Your task to perform on an android device: Open eBay Image 0: 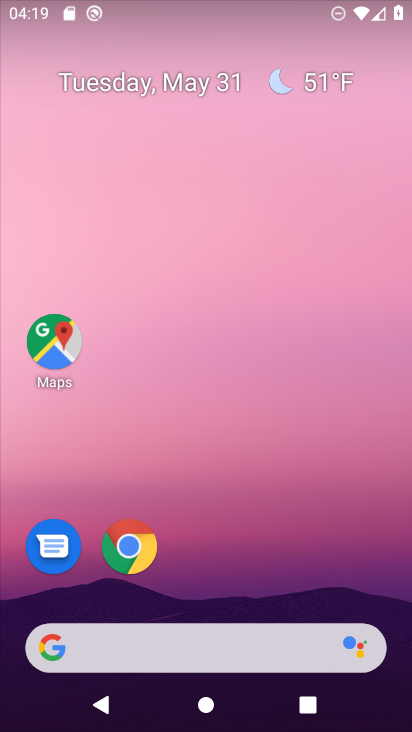
Step 0: drag from (189, 595) to (219, 112)
Your task to perform on an android device: Open eBay Image 1: 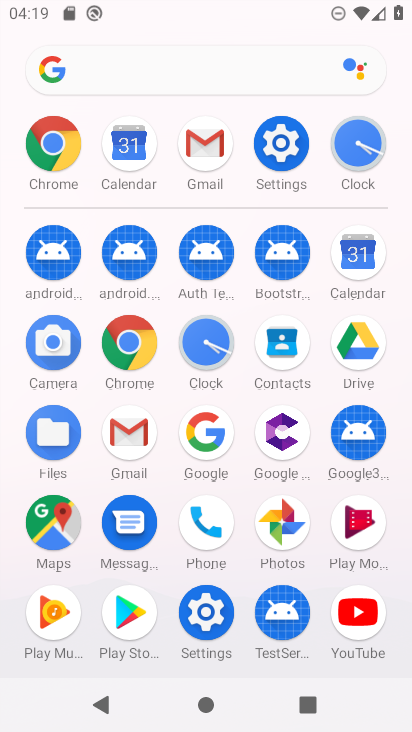
Step 1: click (121, 367)
Your task to perform on an android device: Open eBay Image 2: 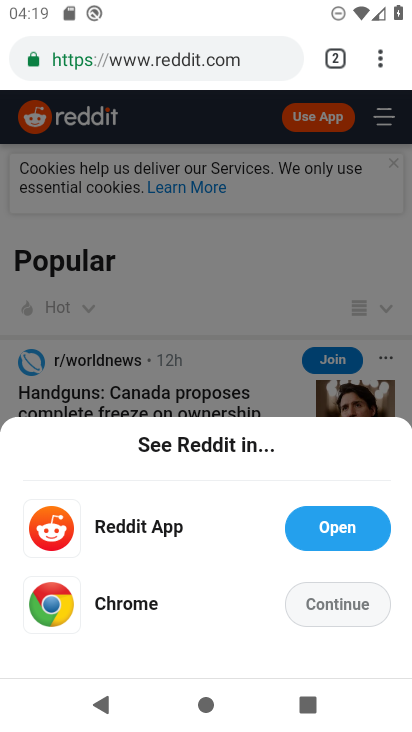
Step 2: press back button
Your task to perform on an android device: Open eBay Image 3: 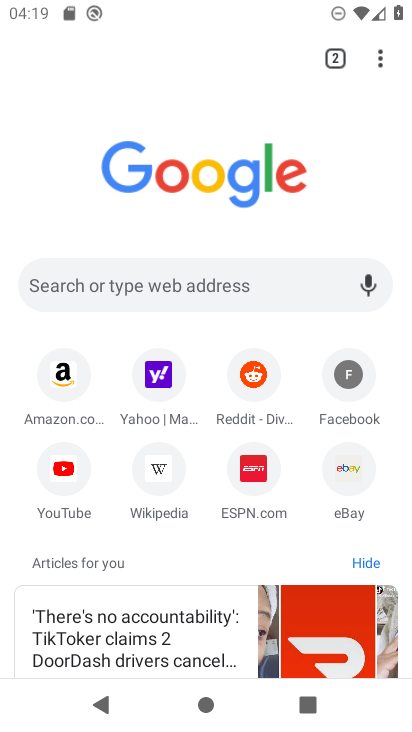
Step 3: click (351, 467)
Your task to perform on an android device: Open eBay Image 4: 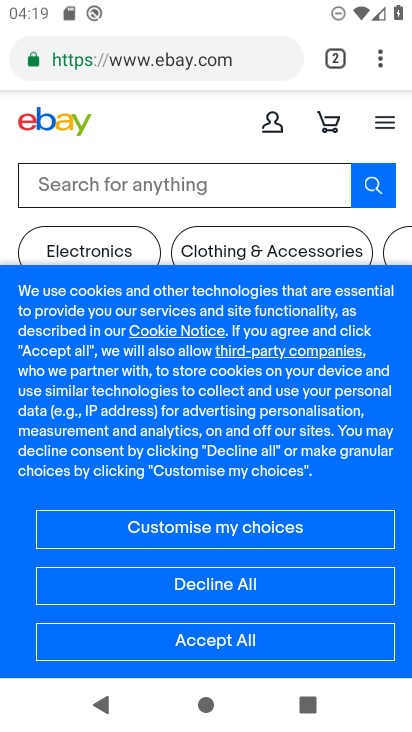
Step 4: task complete